Your task to perform on an android device: Go to Google maps Image 0: 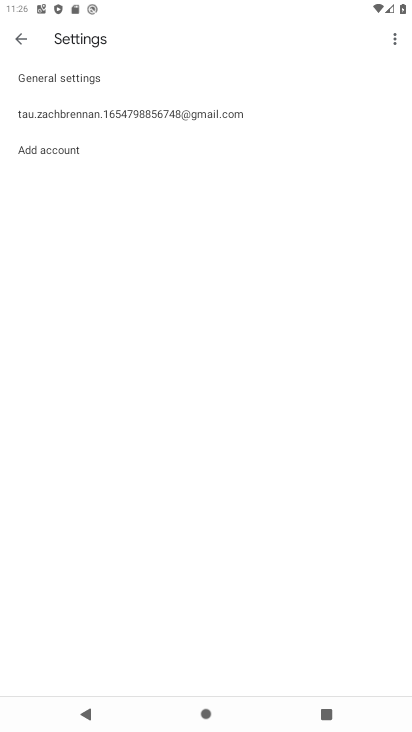
Step 0: press home button
Your task to perform on an android device: Go to Google maps Image 1: 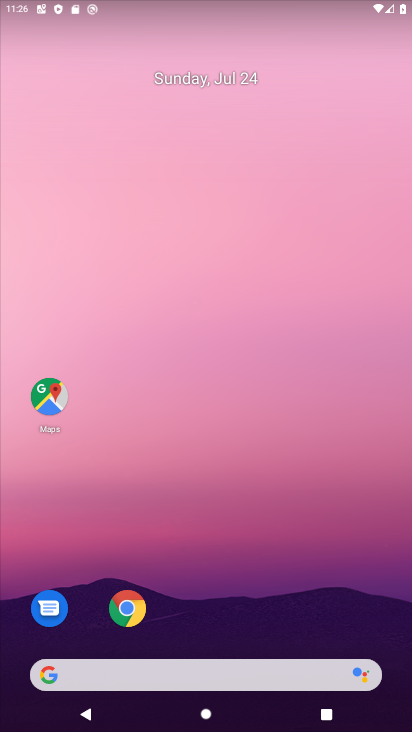
Step 1: click (50, 403)
Your task to perform on an android device: Go to Google maps Image 2: 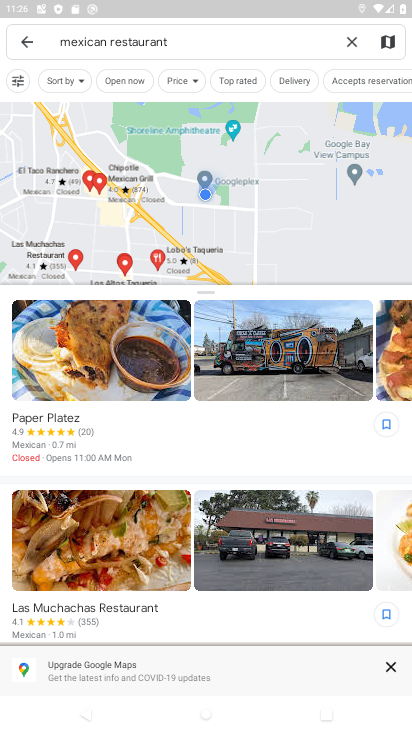
Step 2: task complete